Your task to perform on an android device: Go to sound settings Image 0: 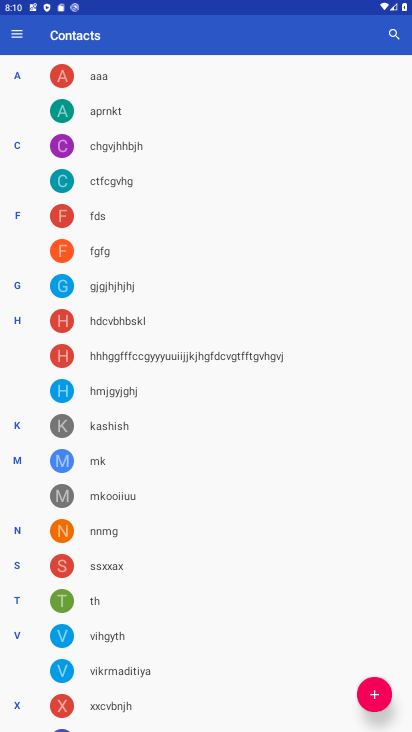
Step 0: press home button
Your task to perform on an android device: Go to sound settings Image 1: 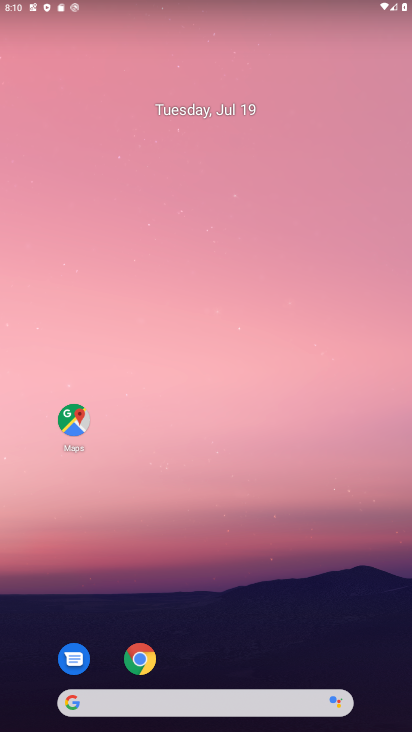
Step 1: drag from (162, 686) to (228, 290)
Your task to perform on an android device: Go to sound settings Image 2: 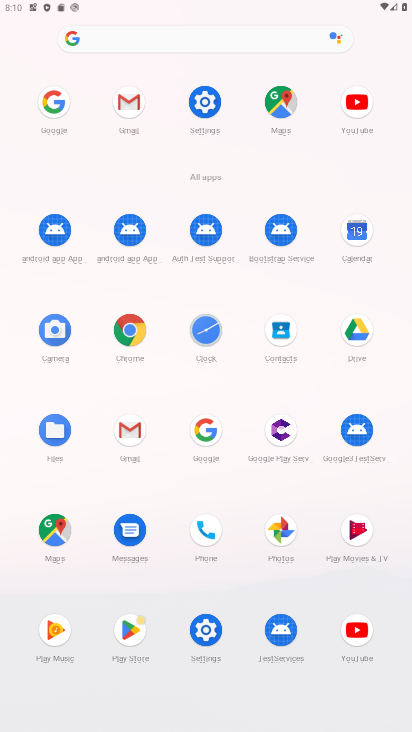
Step 2: click (209, 100)
Your task to perform on an android device: Go to sound settings Image 3: 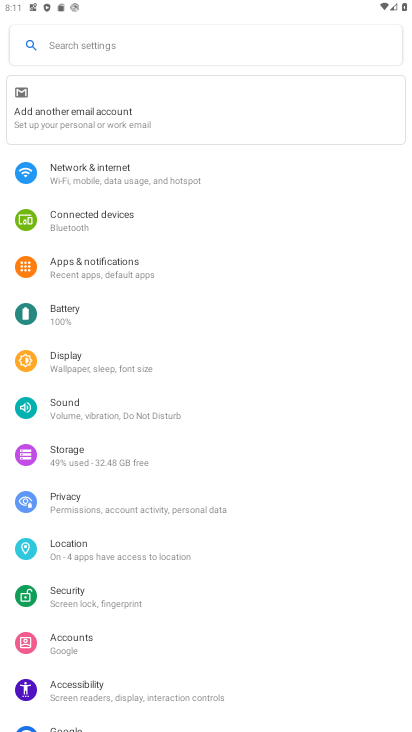
Step 3: click (100, 406)
Your task to perform on an android device: Go to sound settings Image 4: 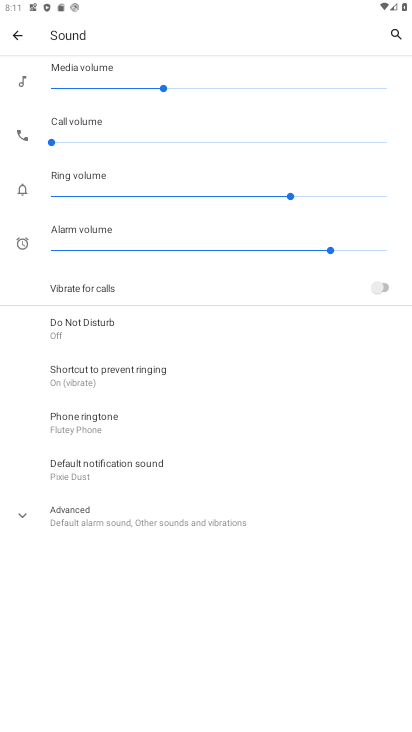
Step 4: click (79, 516)
Your task to perform on an android device: Go to sound settings Image 5: 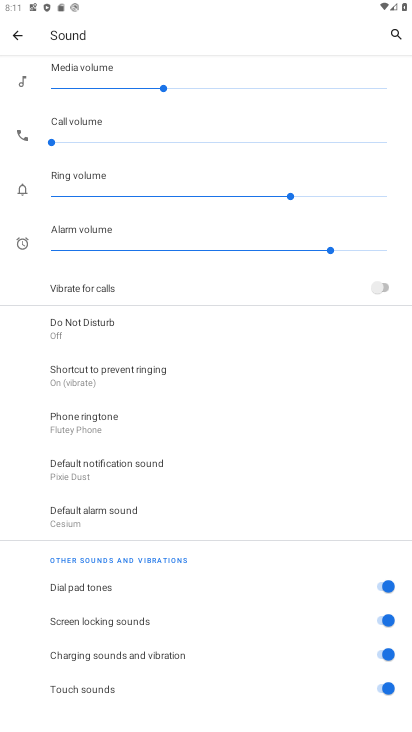
Step 5: task complete